Your task to perform on an android device: Go to Android settings Image 0: 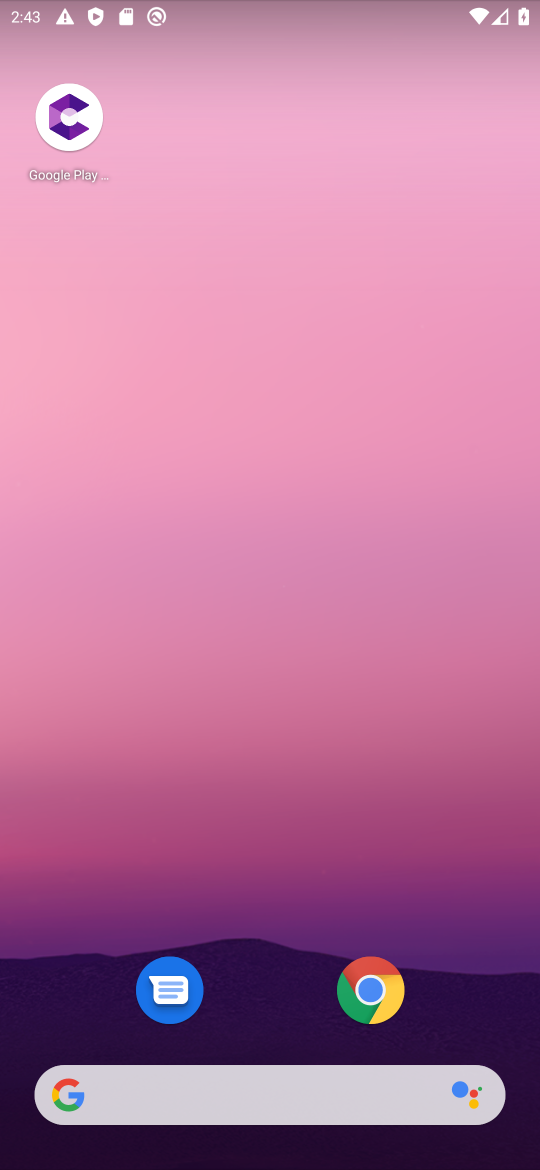
Step 0: drag from (296, 1096) to (284, 5)
Your task to perform on an android device: Go to Android settings Image 1: 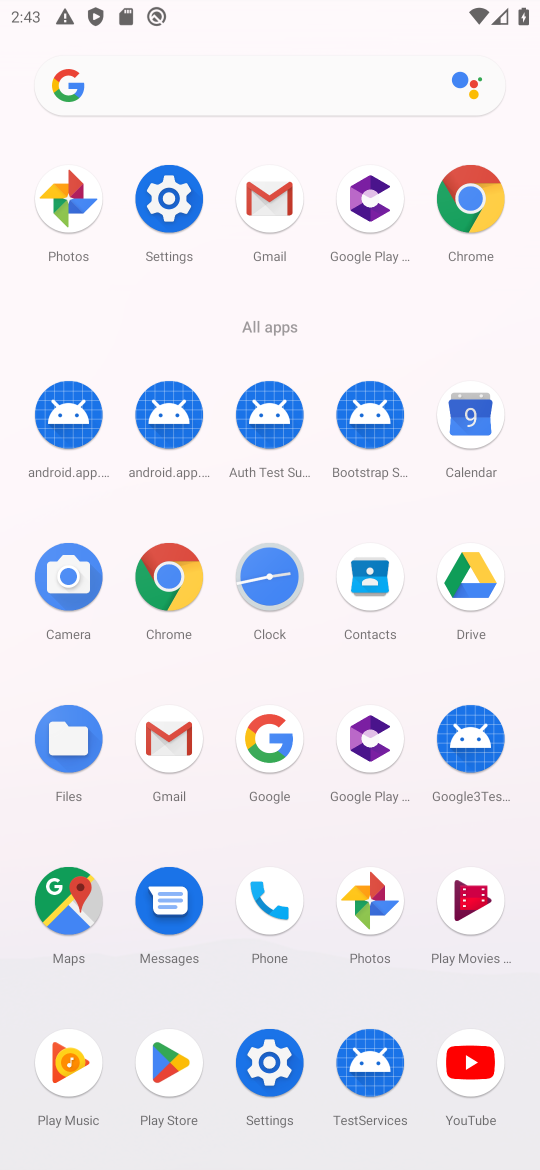
Step 1: click (174, 209)
Your task to perform on an android device: Go to Android settings Image 2: 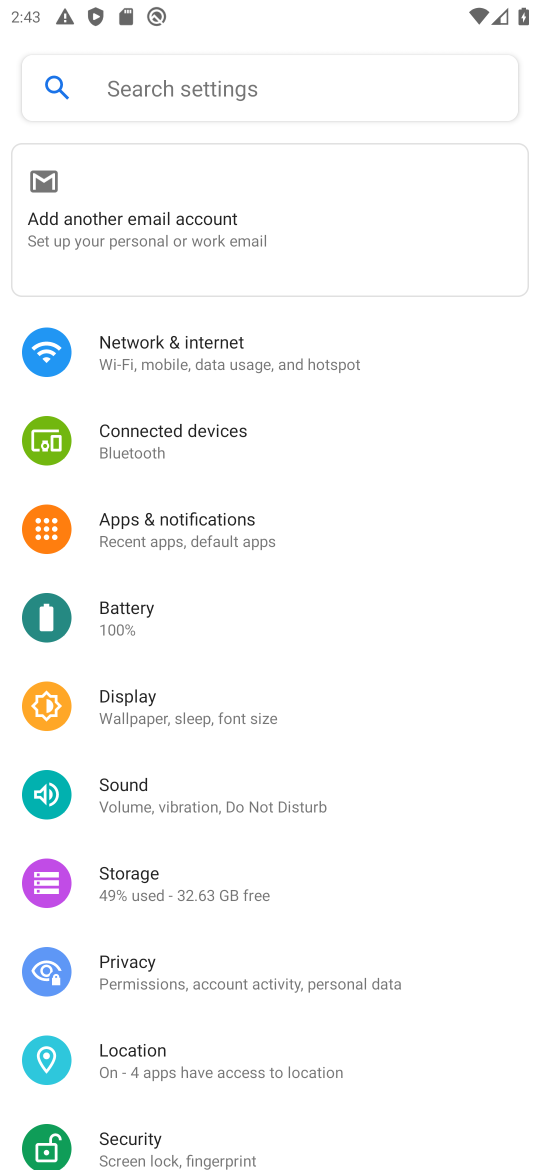
Step 2: drag from (386, 1131) to (395, 51)
Your task to perform on an android device: Go to Android settings Image 3: 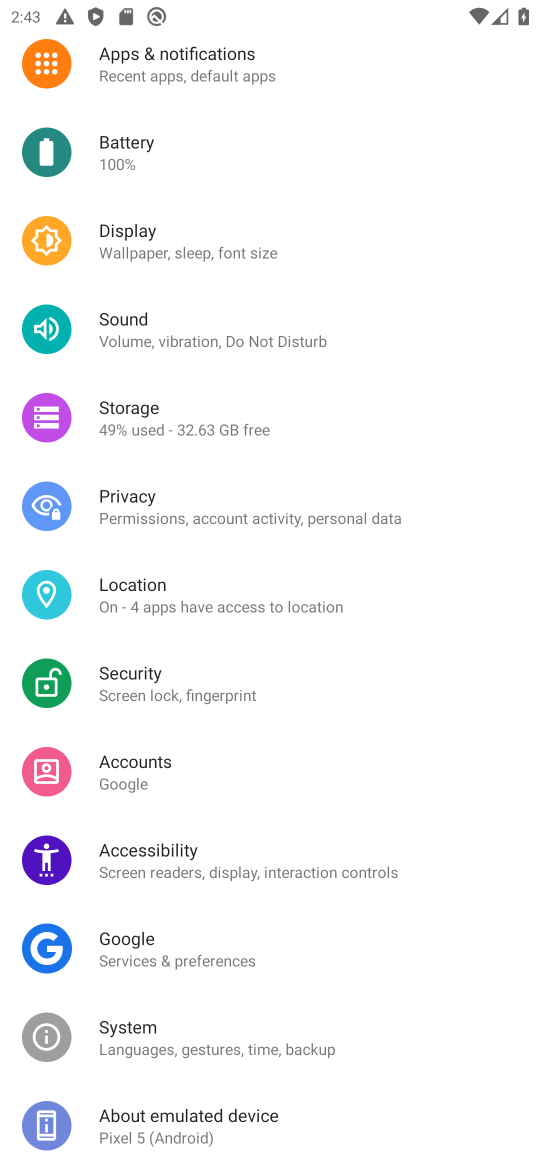
Step 3: click (216, 1094)
Your task to perform on an android device: Go to Android settings Image 4: 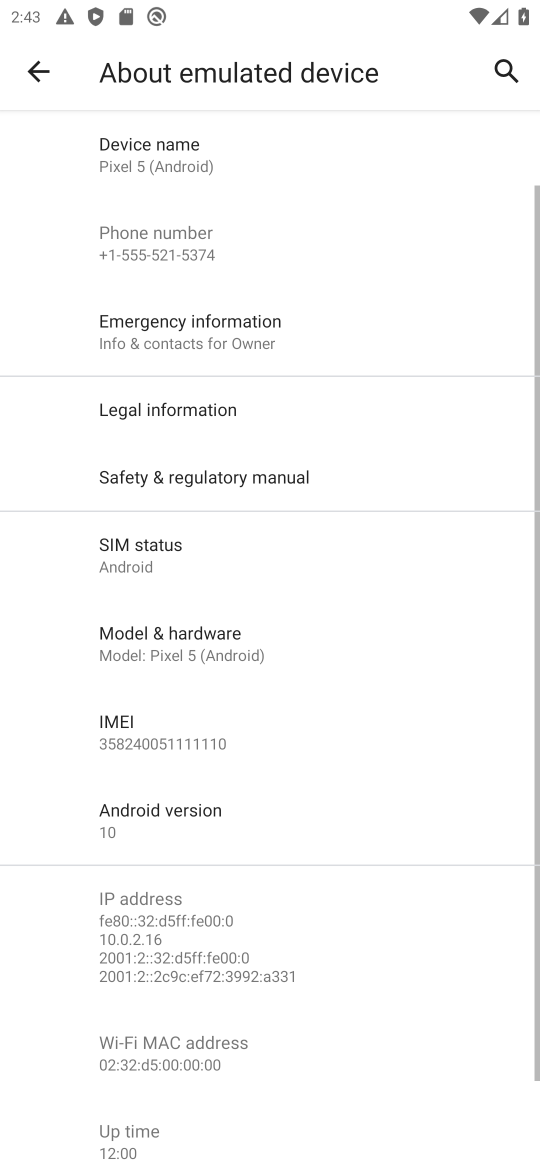
Step 4: click (220, 816)
Your task to perform on an android device: Go to Android settings Image 5: 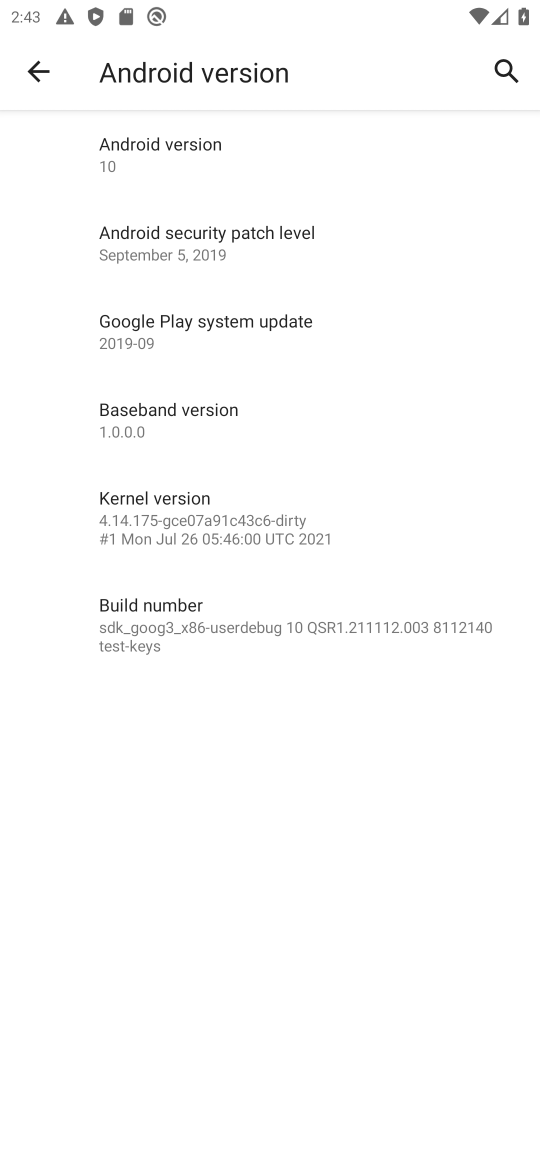
Step 5: task complete